Your task to perform on an android device: Open Yahoo.com Image 0: 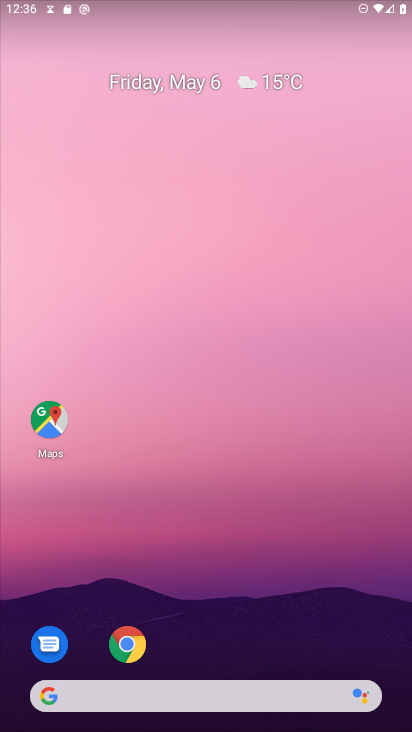
Step 0: drag from (291, 574) to (300, 11)
Your task to perform on an android device: Open Yahoo.com Image 1: 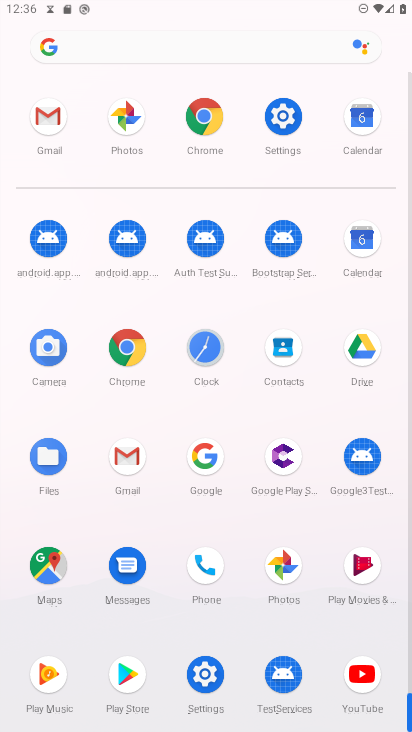
Step 1: drag from (2, 582) to (23, 217)
Your task to perform on an android device: Open Yahoo.com Image 2: 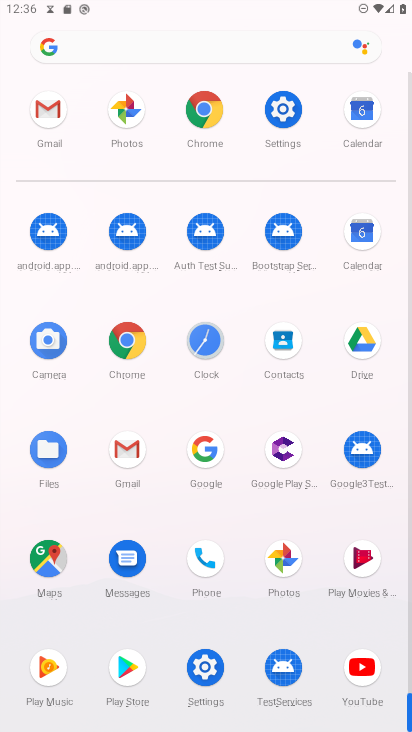
Step 2: click (127, 339)
Your task to perform on an android device: Open Yahoo.com Image 3: 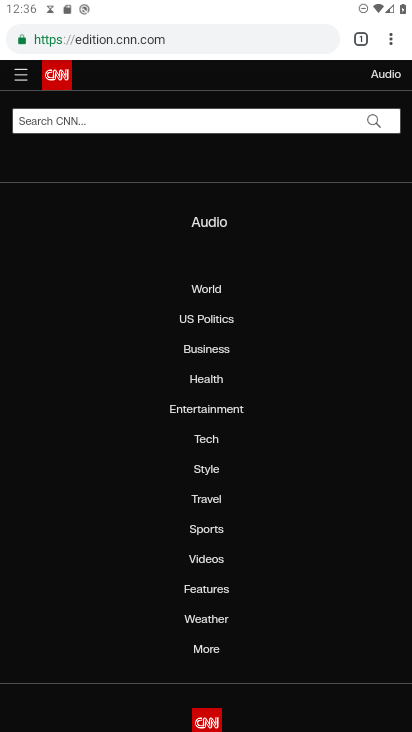
Step 3: click (145, 46)
Your task to perform on an android device: Open Yahoo.com Image 4: 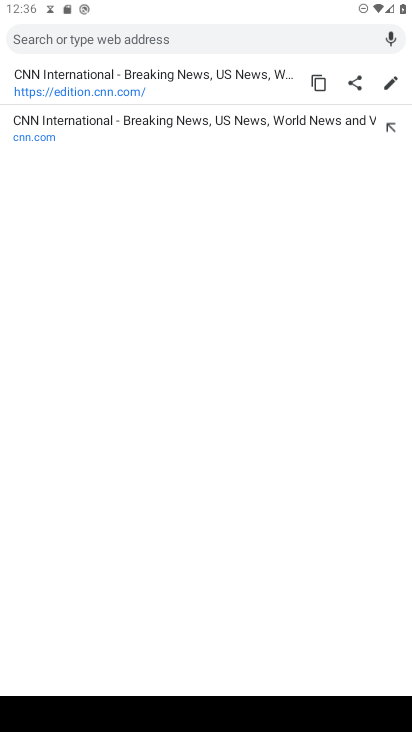
Step 4: click (147, 36)
Your task to perform on an android device: Open Yahoo.com Image 5: 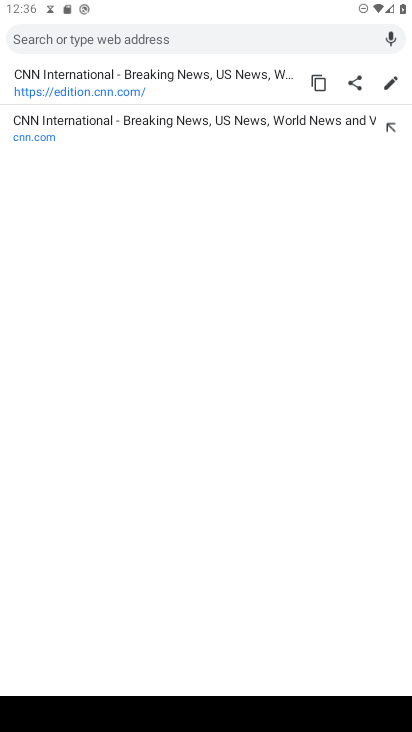
Step 5: type "Yahoo.com"
Your task to perform on an android device: Open Yahoo.com Image 6: 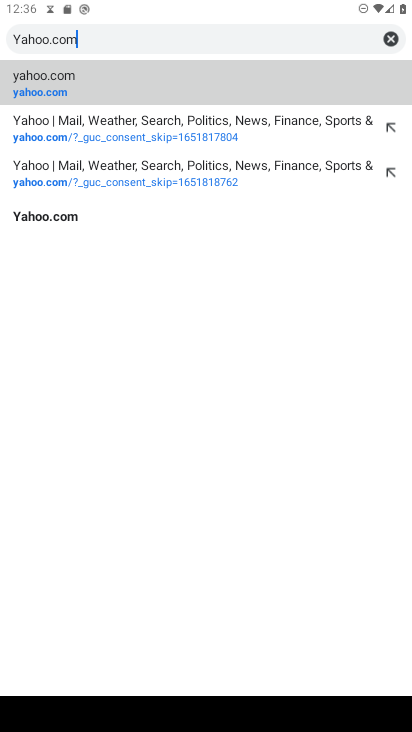
Step 6: type ""
Your task to perform on an android device: Open Yahoo.com Image 7: 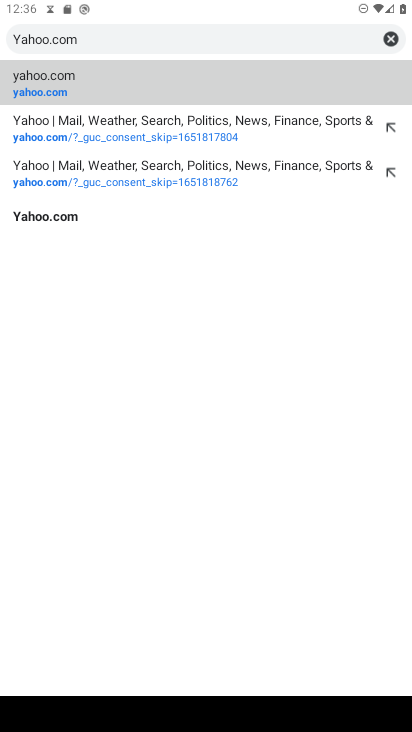
Step 7: click (96, 81)
Your task to perform on an android device: Open Yahoo.com Image 8: 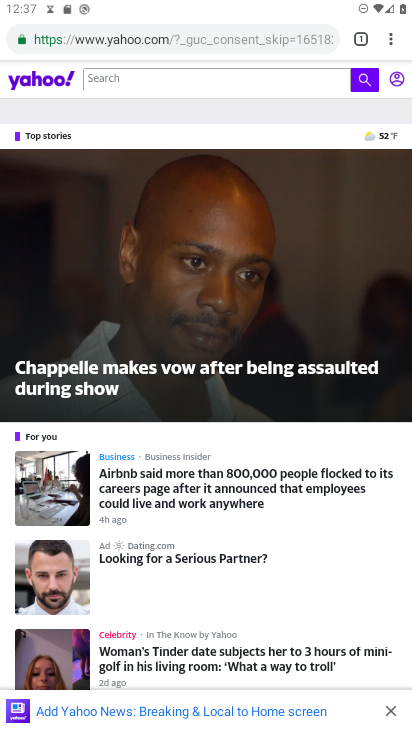
Step 8: task complete